Your task to perform on an android device: delete a single message in the gmail app Image 0: 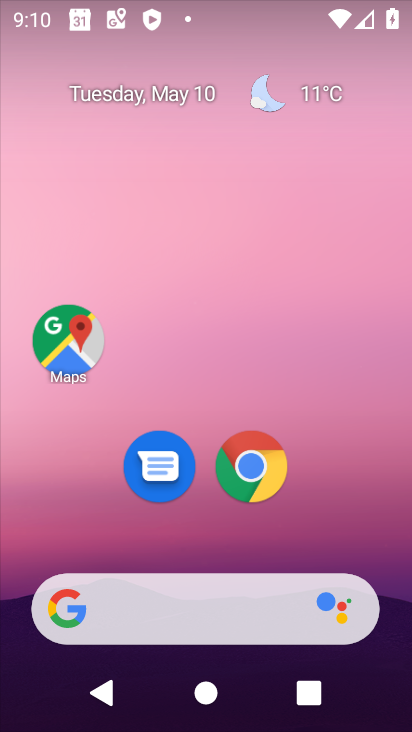
Step 0: drag from (347, 528) to (301, 62)
Your task to perform on an android device: delete a single message in the gmail app Image 1: 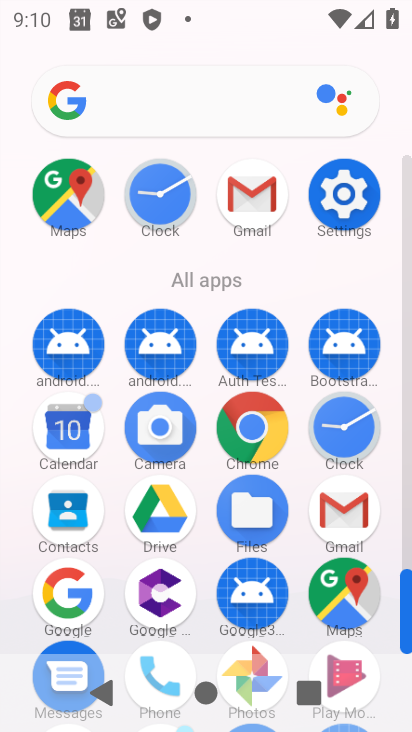
Step 1: click (257, 193)
Your task to perform on an android device: delete a single message in the gmail app Image 2: 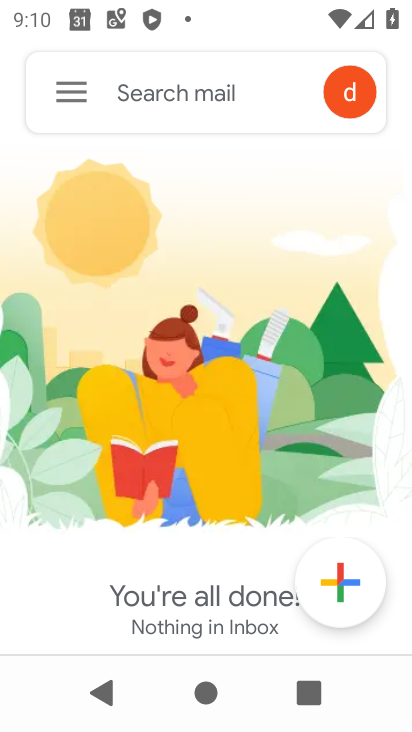
Step 2: task complete